Your task to perform on an android device: Open the Play Movies app and select the watchlist tab. Image 0: 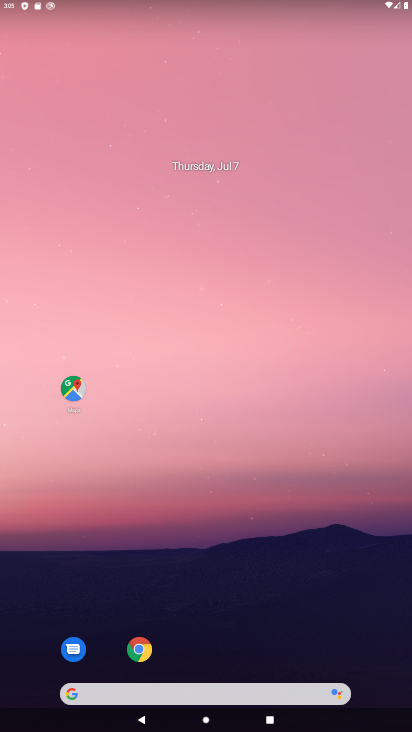
Step 0: drag from (385, 692) to (223, 14)
Your task to perform on an android device: Open the Play Movies app and select the watchlist tab. Image 1: 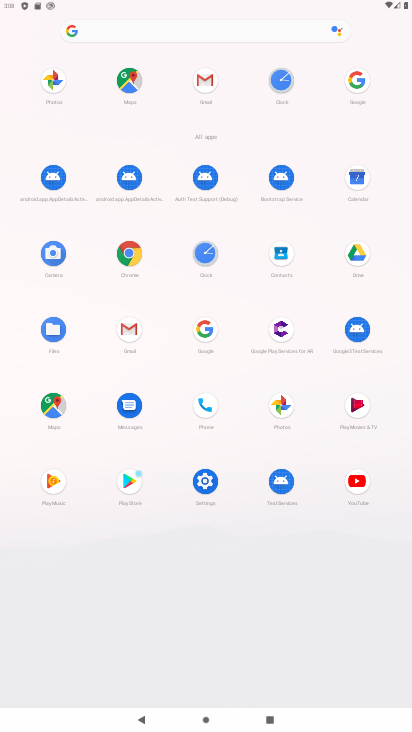
Step 1: click (364, 408)
Your task to perform on an android device: Open the Play Movies app and select the watchlist tab. Image 2: 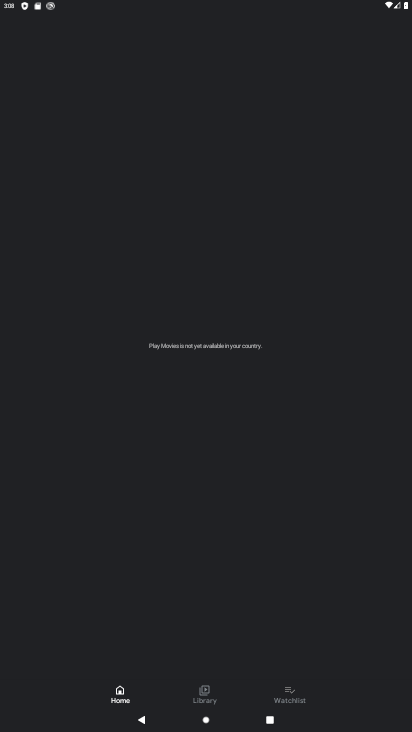
Step 2: click (291, 689)
Your task to perform on an android device: Open the Play Movies app and select the watchlist tab. Image 3: 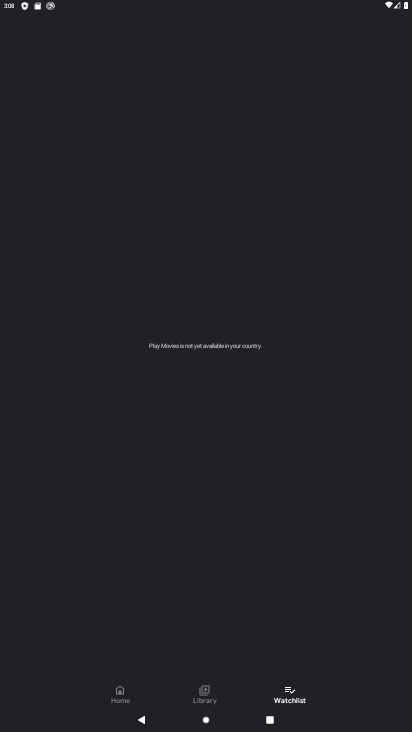
Step 3: task complete